Your task to perform on an android device: Open Google Image 0: 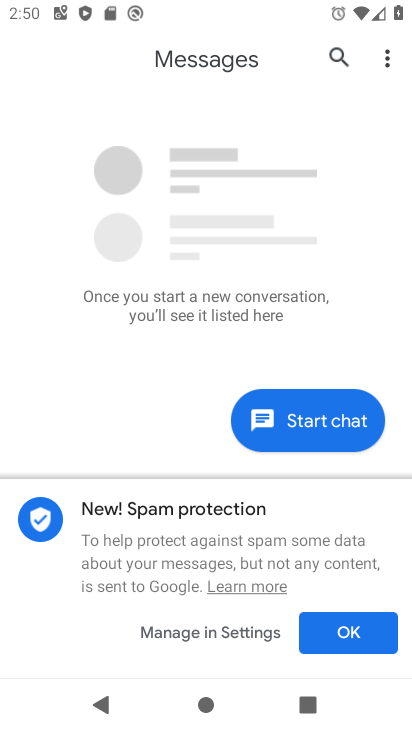
Step 0: press home button
Your task to perform on an android device: Open Google Image 1: 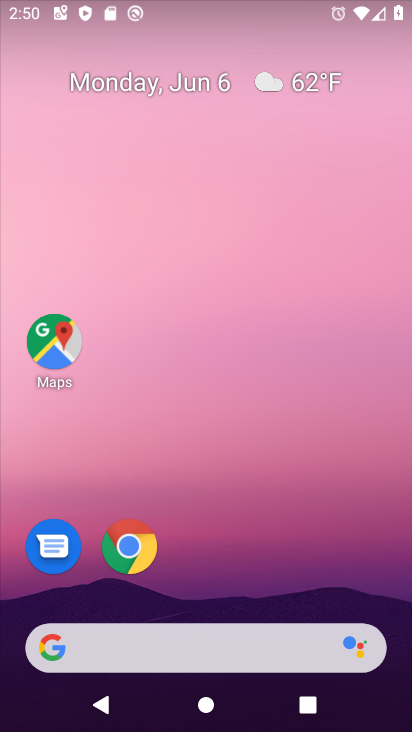
Step 1: drag from (230, 375) to (230, 205)
Your task to perform on an android device: Open Google Image 2: 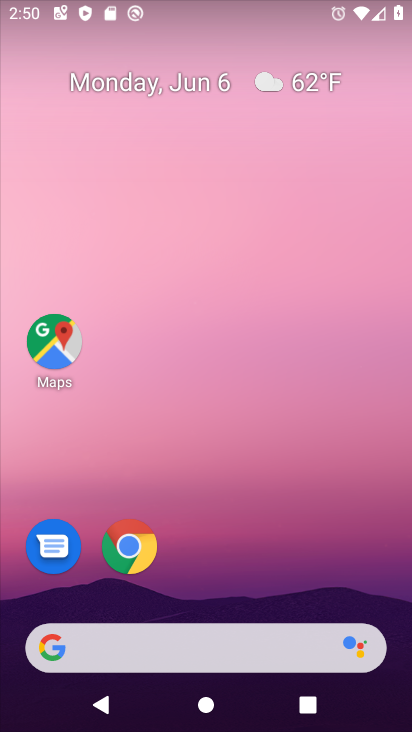
Step 2: drag from (213, 590) to (224, 169)
Your task to perform on an android device: Open Google Image 3: 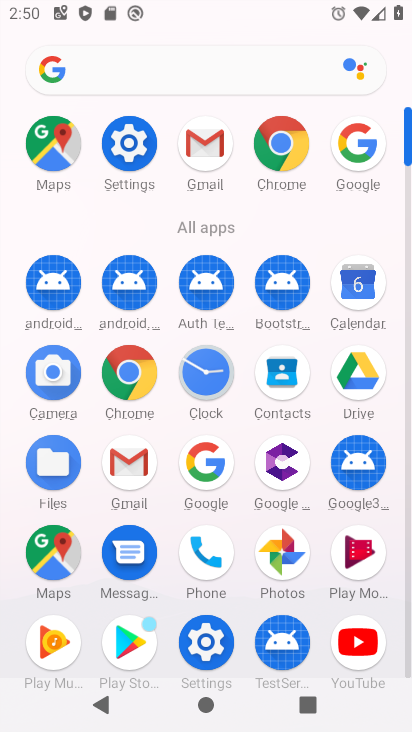
Step 3: click (224, 471)
Your task to perform on an android device: Open Google Image 4: 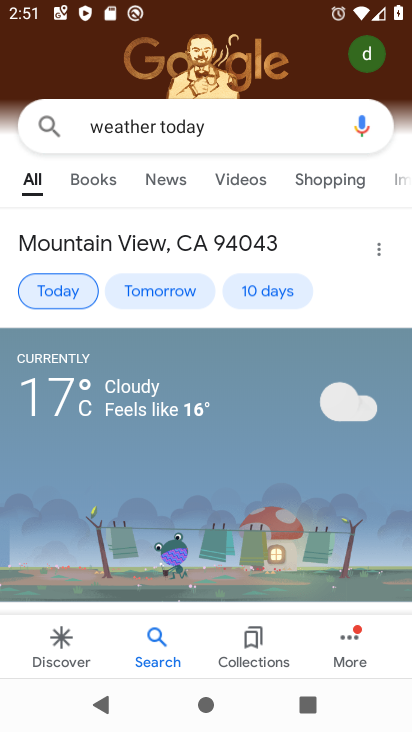
Step 4: task complete